Your task to perform on an android device: open a new tab in the chrome app Image 0: 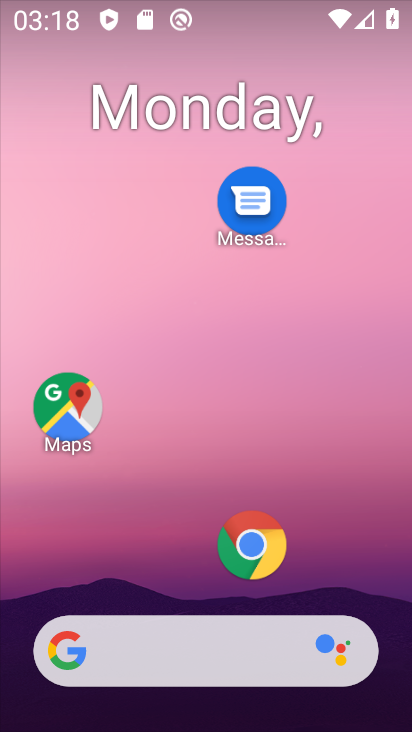
Step 0: click (264, 545)
Your task to perform on an android device: open a new tab in the chrome app Image 1: 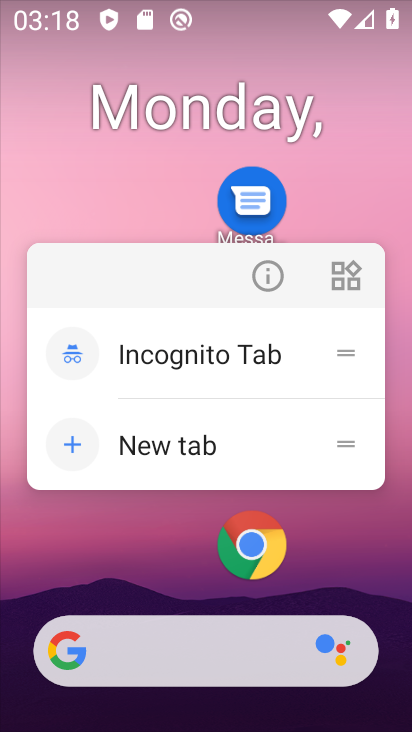
Step 1: click (264, 545)
Your task to perform on an android device: open a new tab in the chrome app Image 2: 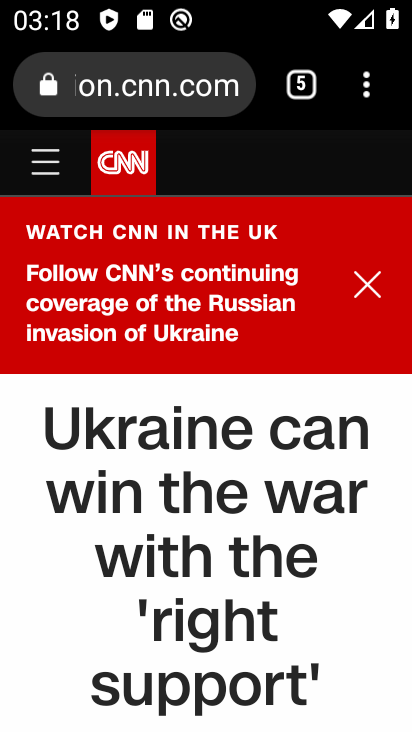
Step 2: click (307, 84)
Your task to perform on an android device: open a new tab in the chrome app Image 3: 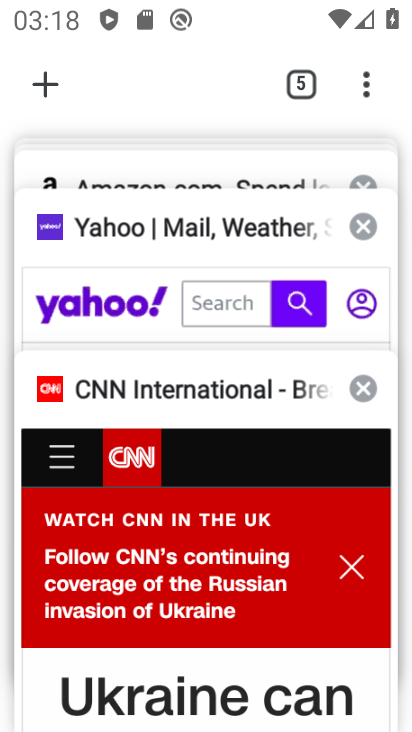
Step 3: click (44, 73)
Your task to perform on an android device: open a new tab in the chrome app Image 4: 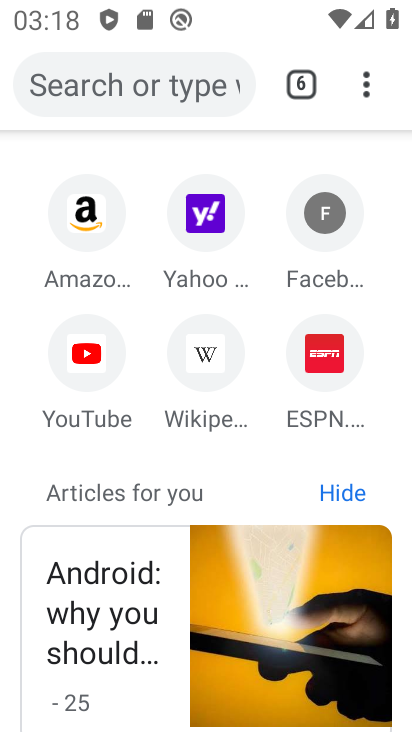
Step 4: task complete